Your task to perform on an android device: show emergency info Image 0: 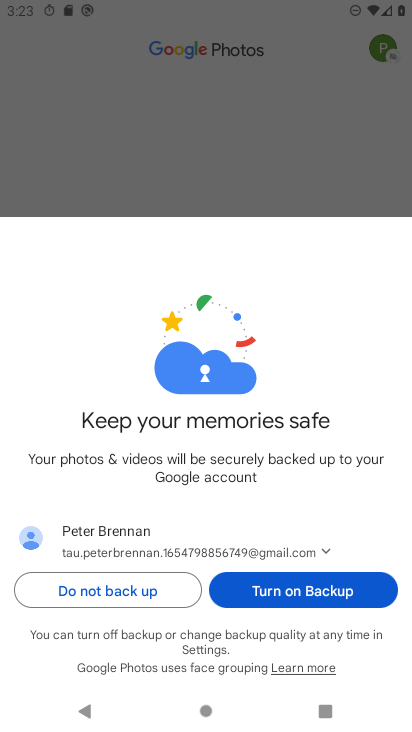
Step 0: press home button
Your task to perform on an android device: show emergency info Image 1: 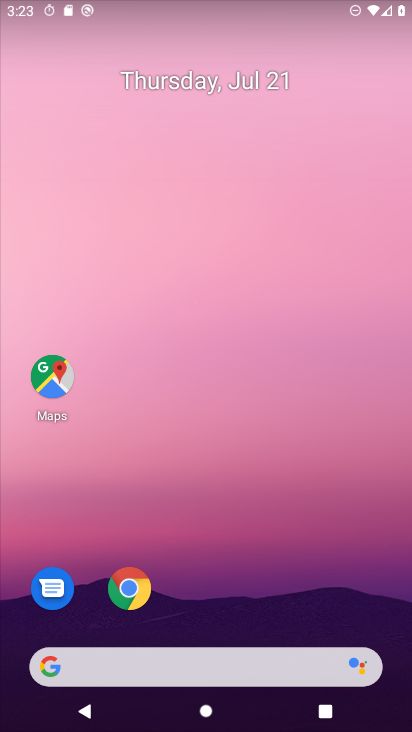
Step 1: drag from (229, 512) to (304, 4)
Your task to perform on an android device: show emergency info Image 2: 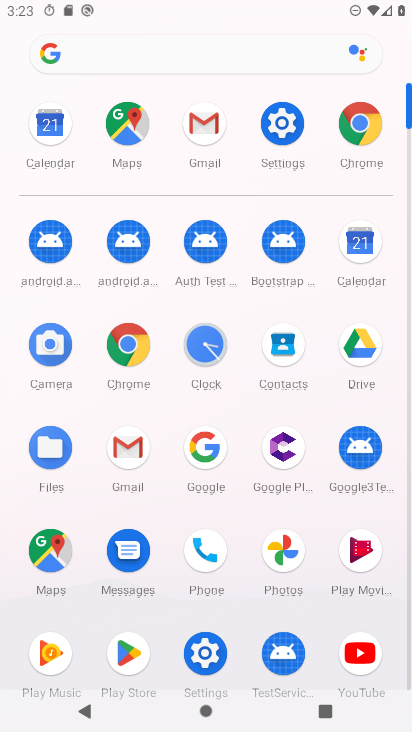
Step 2: click (291, 134)
Your task to perform on an android device: show emergency info Image 3: 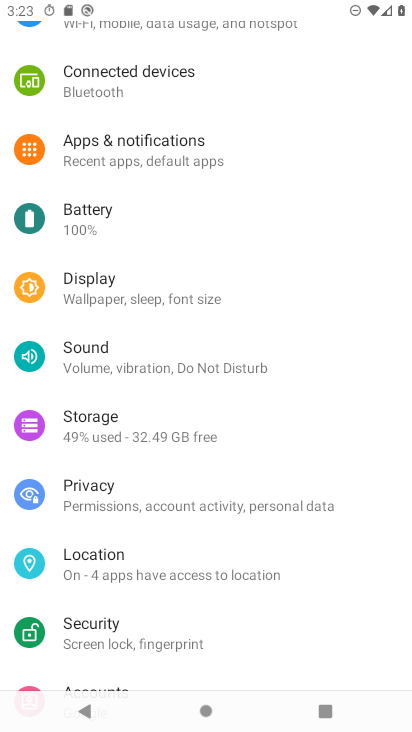
Step 3: drag from (171, 546) to (257, 39)
Your task to perform on an android device: show emergency info Image 4: 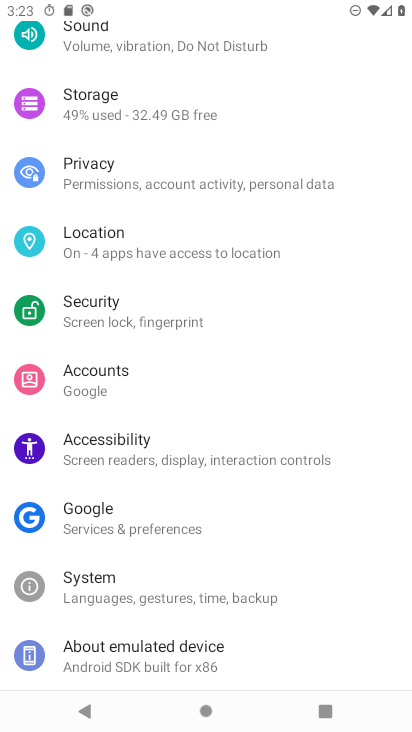
Step 4: drag from (187, 496) to (282, 5)
Your task to perform on an android device: show emergency info Image 5: 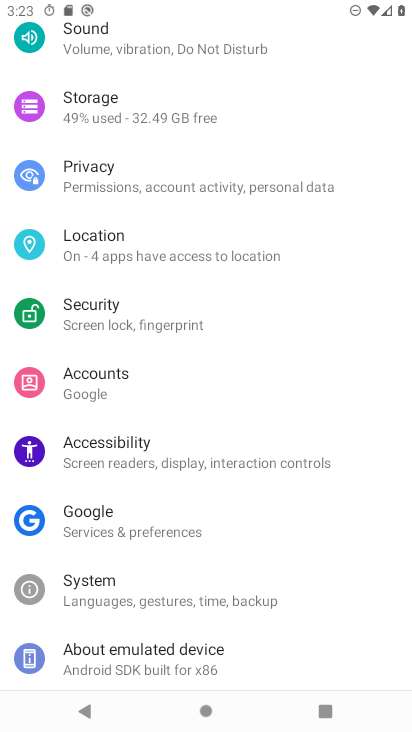
Step 5: click (137, 651)
Your task to perform on an android device: show emergency info Image 6: 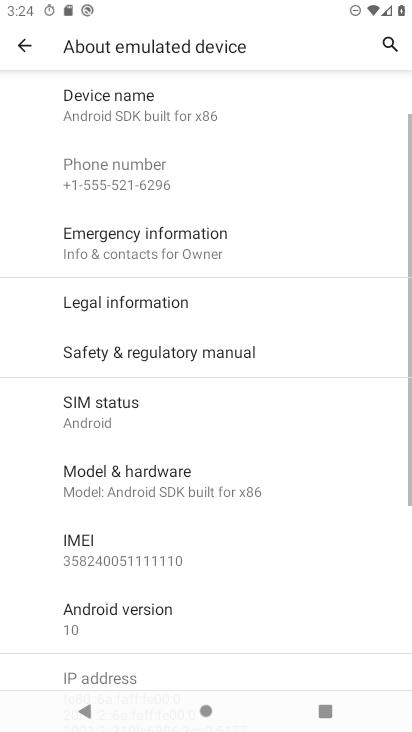
Step 6: click (153, 253)
Your task to perform on an android device: show emergency info Image 7: 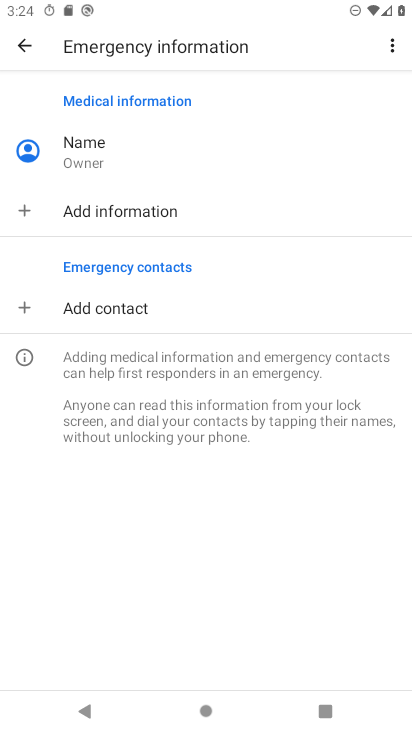
Step 7: task complete